Your task to perform on an android device: Go to sound settings Image 0: 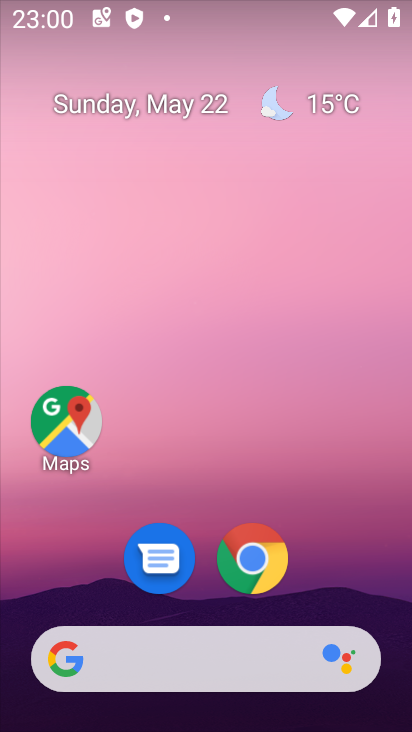
Step 0: drag from (348, 603) to (285, 16)
Your task to perform on an android device: Go to sound settings Image 1: 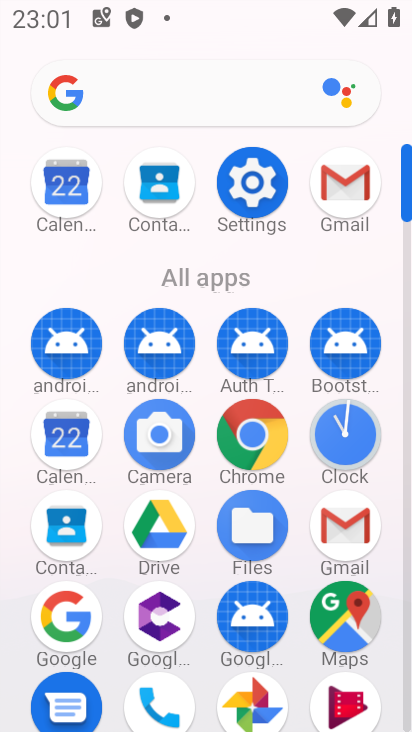
Step 1: click (259, 189)
Your task to perform on an android device: Go to sound settings Image 2: 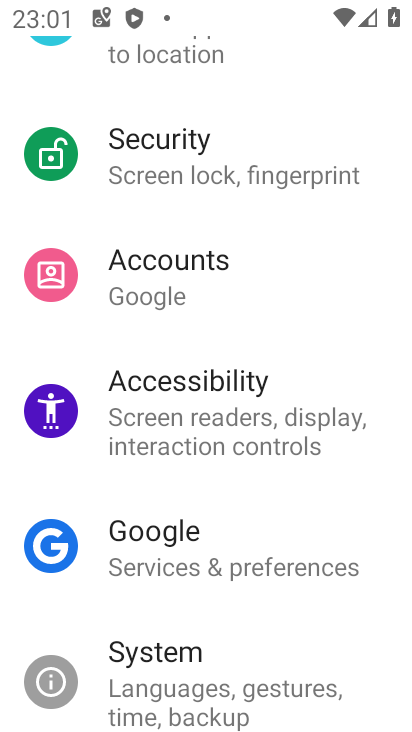
Step 2: drag from (305, 186) to (312, 505)
Your task to perform on an android device: Go to sound settings Image 3: 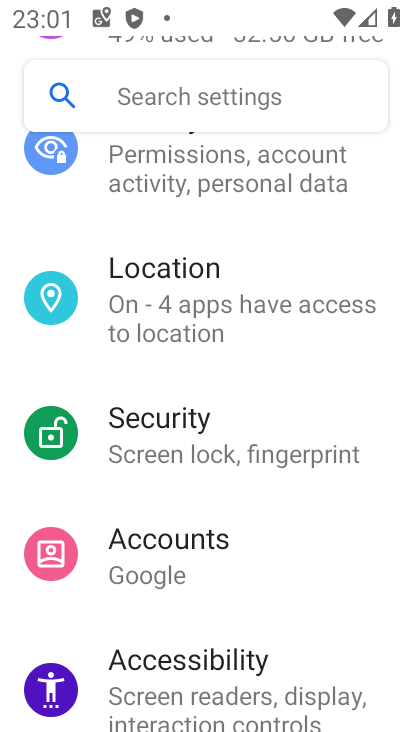
Step 3: drag from (276, 268) to (286, 606)
Your task to perform on an android device: Go to sound settings Image 4: 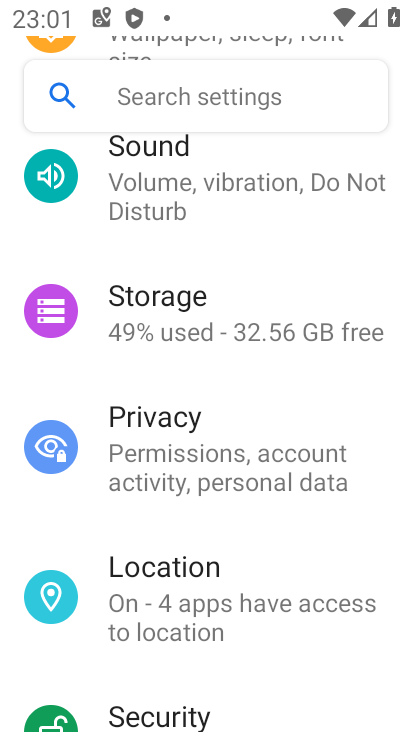
Step 4: click (153, 195)
Your task to perform on an android device: Go to sound settings Image 5: 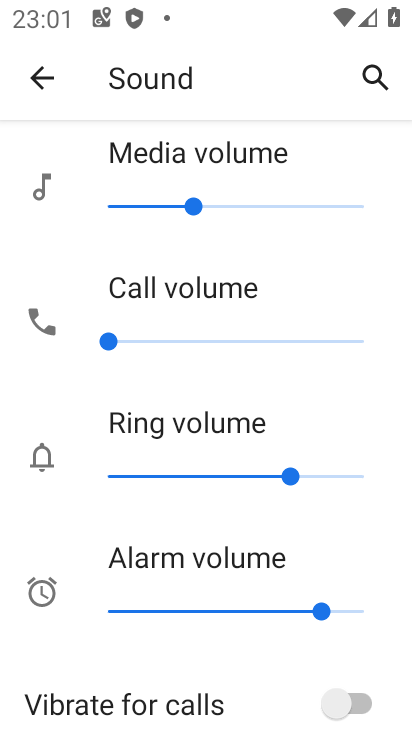
Step 5: task complete